Your task to perform on an android device: find snoozed emails in the gmail app Image 0: 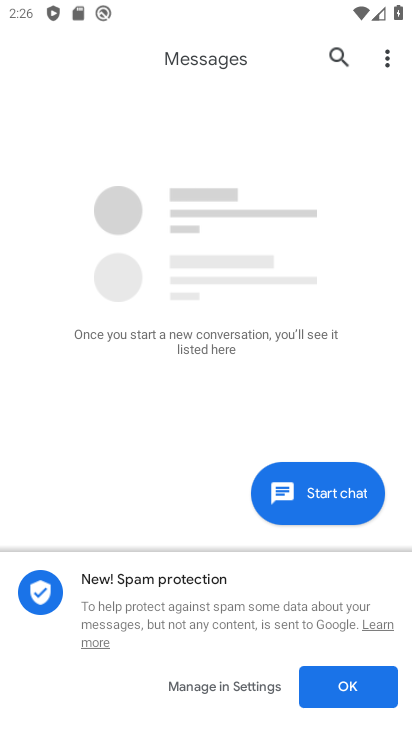
Step 0: press home button
Your task to perform on an android device: find snoozed emails in the gmail app Image 1: 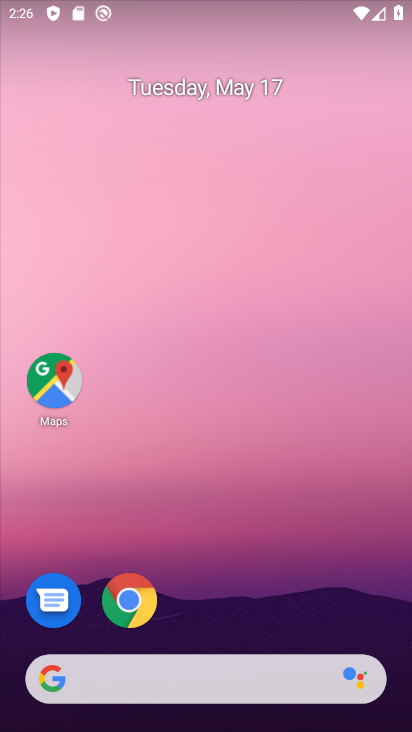
Step 1: drag from (210, 644) to (290, 206)
Your task to perform on an android device: find snoozed emails in the gmail app Image 2: 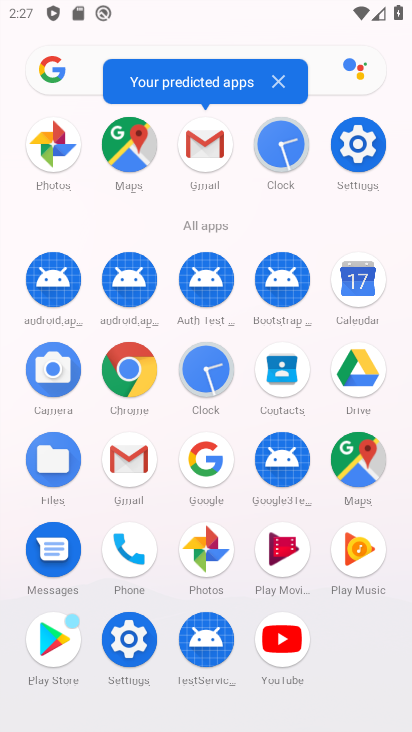
Step 2: click (135, 452)
Your task to perform on an android device: find snoozed emails in the gmail app Image 3: 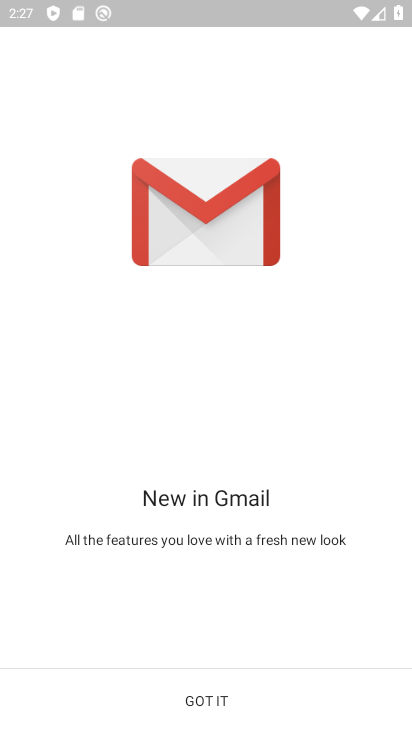
Step 3: click (226, 694)
Your task to perform on an android device: find snoozed emails in the gmail app Image 4: 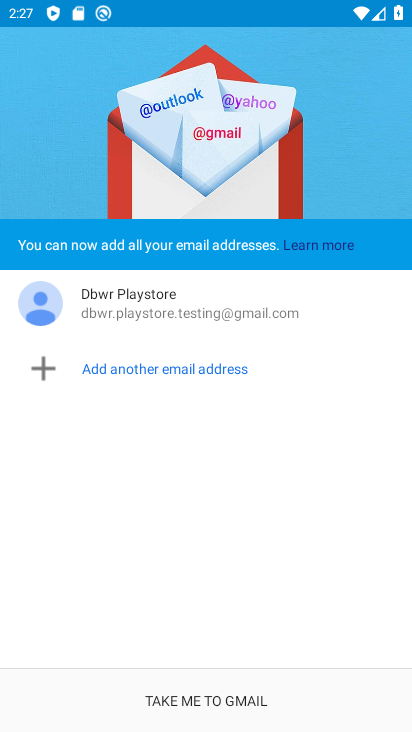
Step 4: click (240, 702)
Your task to perform on an android device: find snoozed emails in the gmail app Image 5: 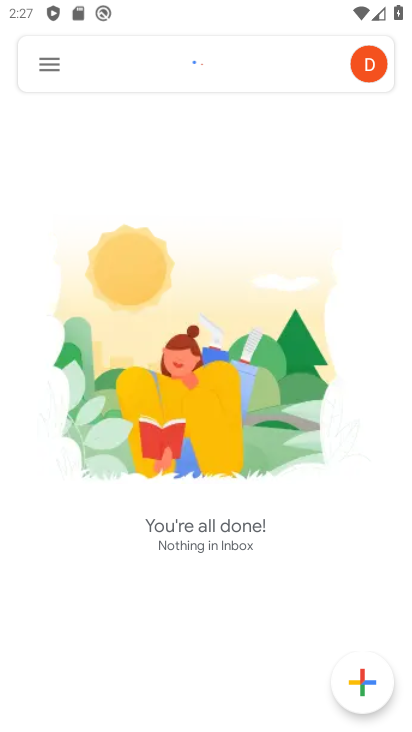
Step 5: click (50, 72)
Your task to perform on an android device: find snoozed emails in the gmail app Image 6: 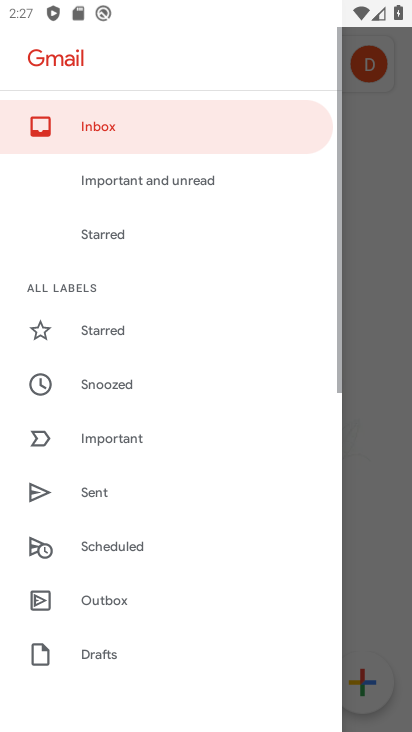
Step 6: drag from (112, 508) to (165, 151)
Your task to perform on an android device: find snoozed emails in the gmail app Image 7: 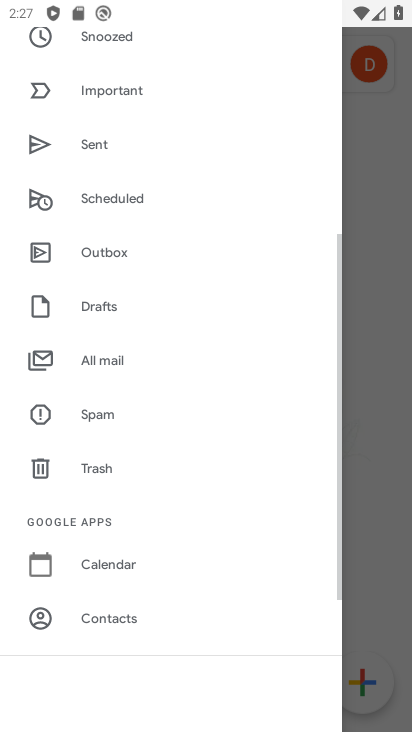
Step 7: drag from (141, 526) to (181, 212)
Your task to perform on an android device: find snoozed emails in the gmail app Image 8: 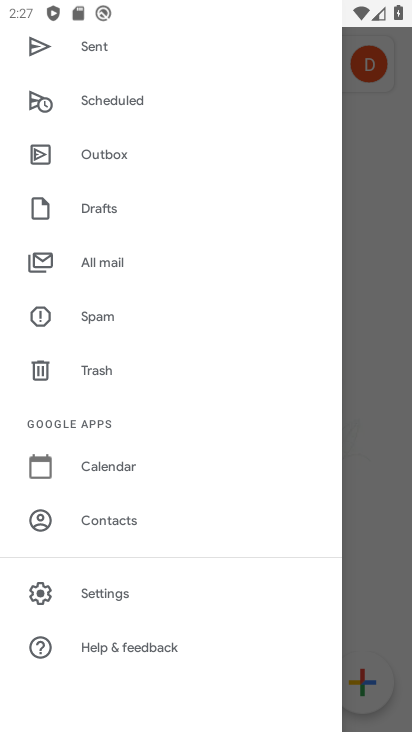
Step 8: drag from (143, 131) to (131, 445)
Your task to perform on an android device: find snoozed emails in the gmail app Image 9: 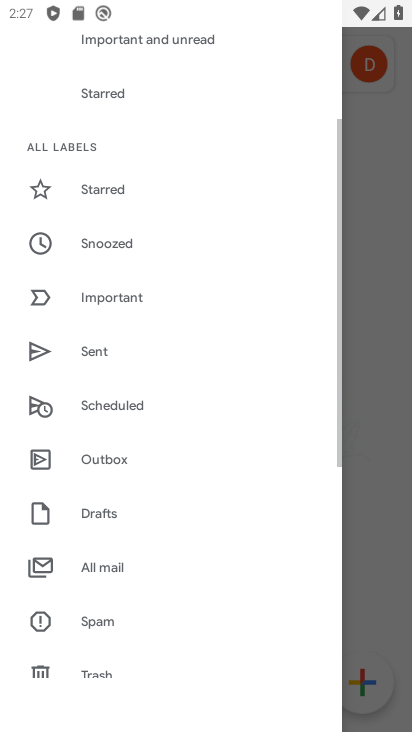
Step 9: click (150, 254)
Your task to perform on an android device: find snoozed emails in the gmail app Image 10: 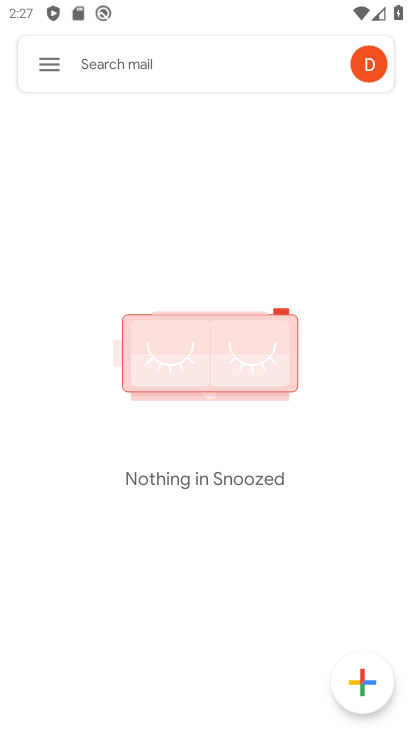
Step 10: task complete